Your task to perform on an android device: open a bookmark in the chrome app Image 0: 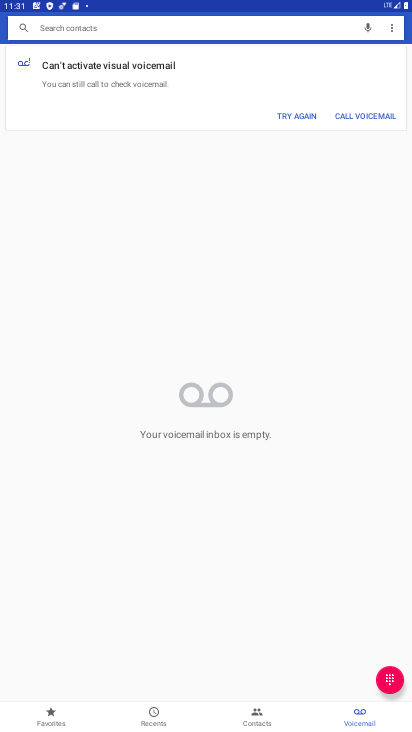
Step 0: press home button
Your task to perform on an android device: open a bookmark in the chrome app Image 1: 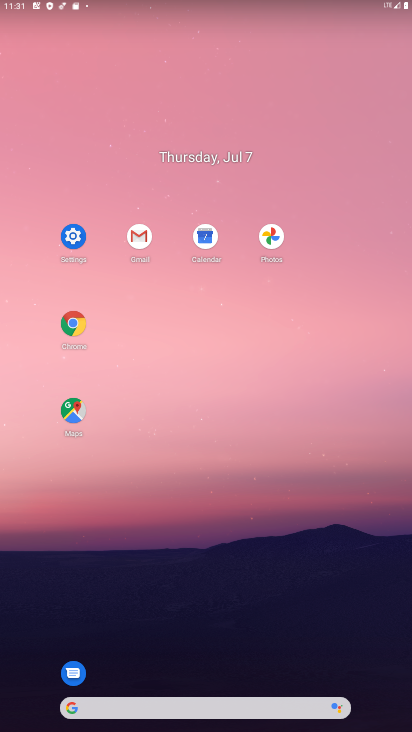
Step 1: click (75, 334)
Your task to perform on an android device: open a bookmark in the chrome app Image 2: 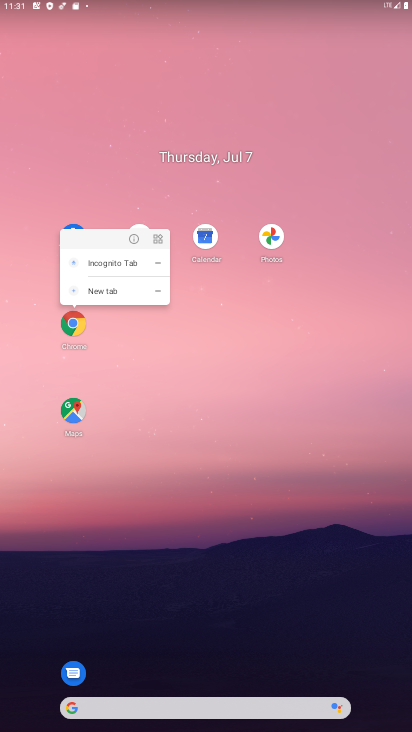
Step 2: click (75, 334)
Your task to perform on an android device: open a bookmark in the chrome app Image 3: 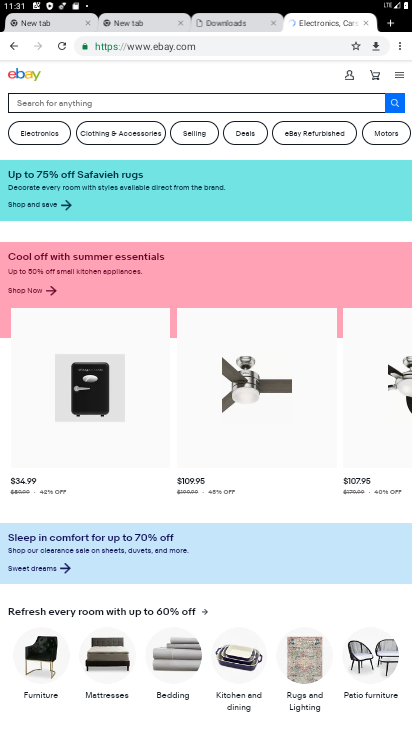
Step 3: click (391, 23)
Your task to perform on an android device: open a bookmark in the chrome app Image 4: 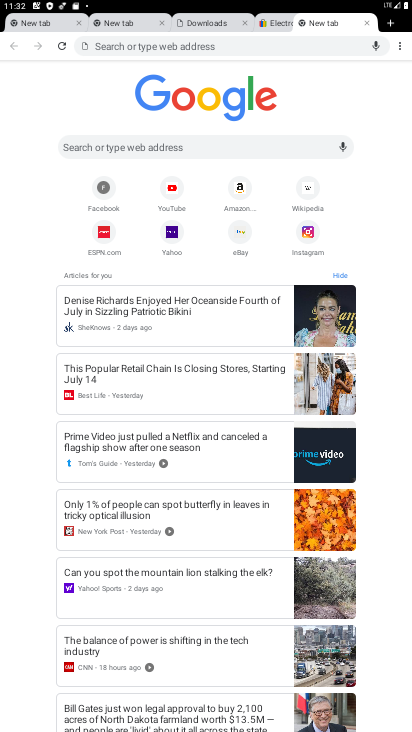
Step 4: click (404, 52)
Your task to perform on an android device: open a bookmark in the chrome app Image 5: 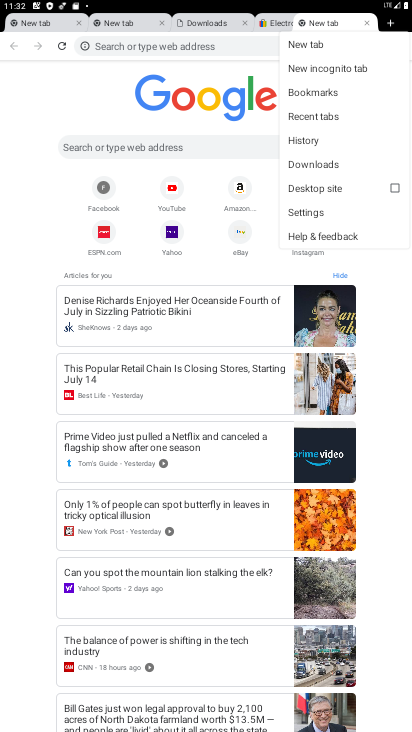
Step 5: click (335, 90)
Your task to perform on an android device: open a bookmark in the chrome app Image 6: 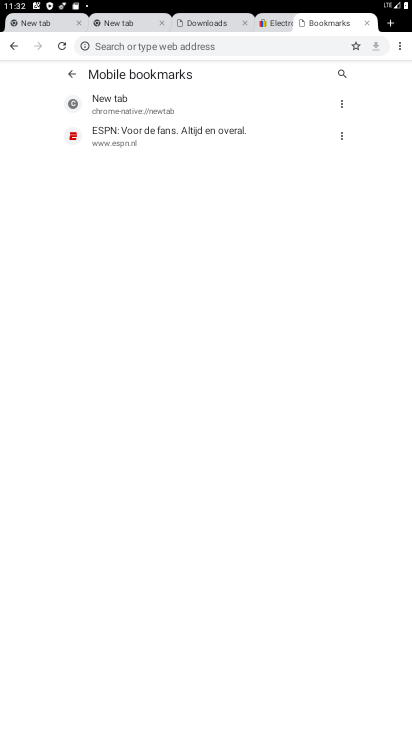
Step 6: task complete